Your task to perform on an android device: remove spam from my inbox in the gmail app Image 0: 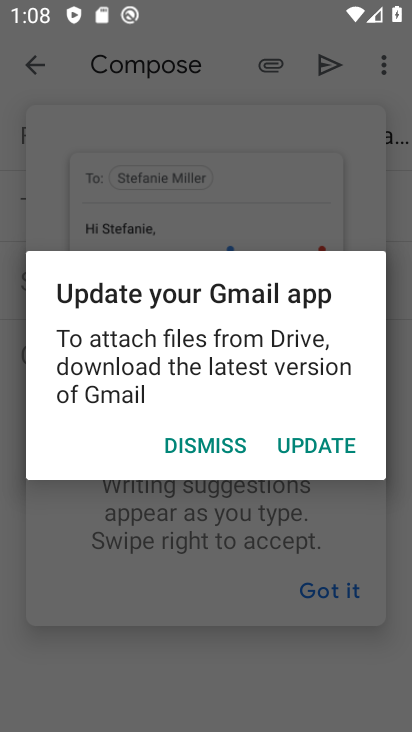
Step 0: press home button
Your task to perform on an android device: remove spam from my inbox in the gmail app Image 1: 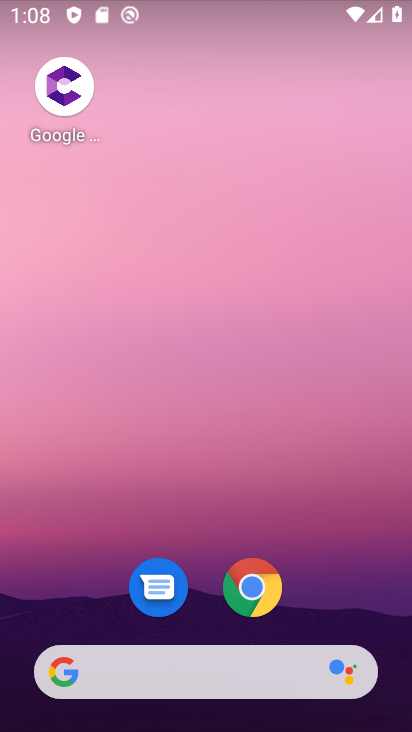
Step 1: drag from (221, 623) to (254, 34)
Your task to perform on an android device: remove spam from my inbox in the gmail app Image 2: 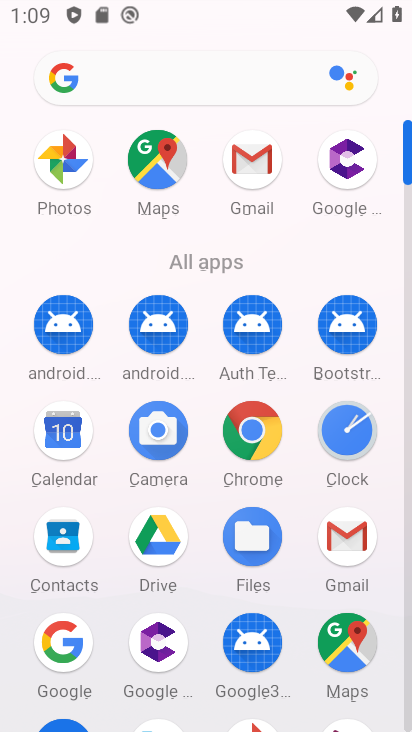
Step 2: click (255, 143)
Your task to perform on an android device: remove spam from my inbox in the gmail app Image 3: 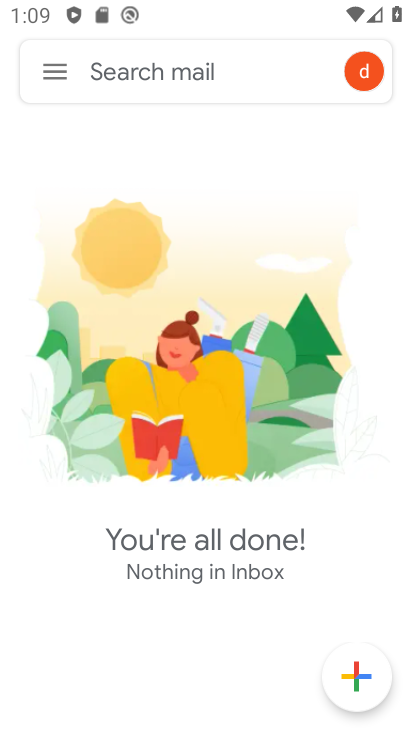
Step 3: click (64, 70)
Your task to perform on an android device: remove spam from my inbox in the gmail app Image 4: 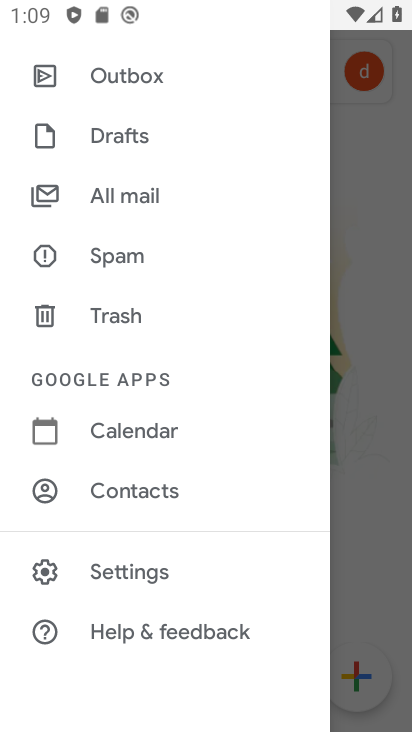
Step 4: click (163, 262)
Your task to perform on an android device: remove spam from my inbox in the gmail app Image 5: 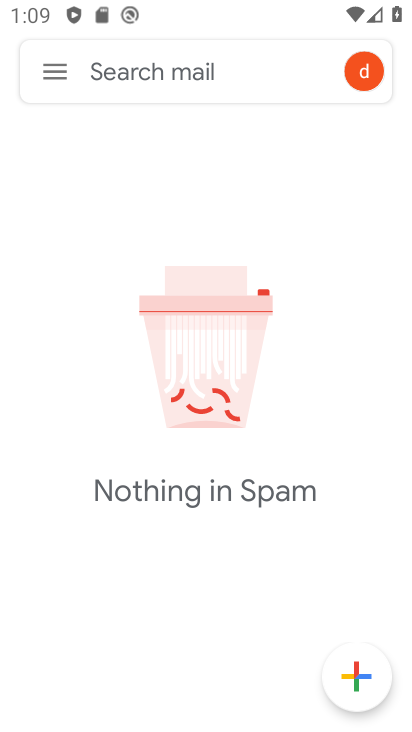
Step 5: task complete